Your task to perform on an android device: Go to Amazon Image 0: 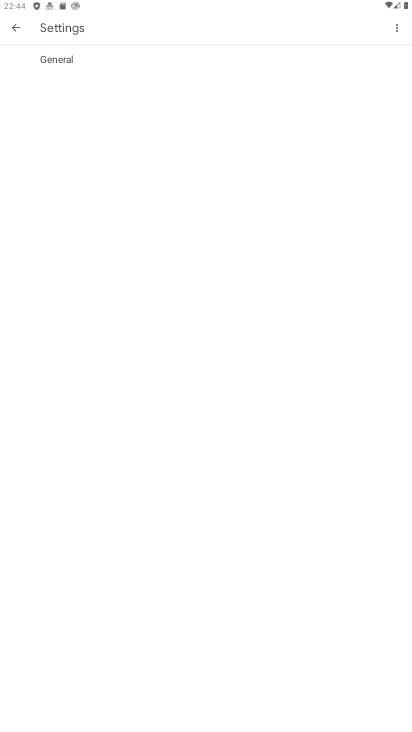
Step 0: click (15, 30)
Your task to perform on an android device: Go to Amazon Image 1: 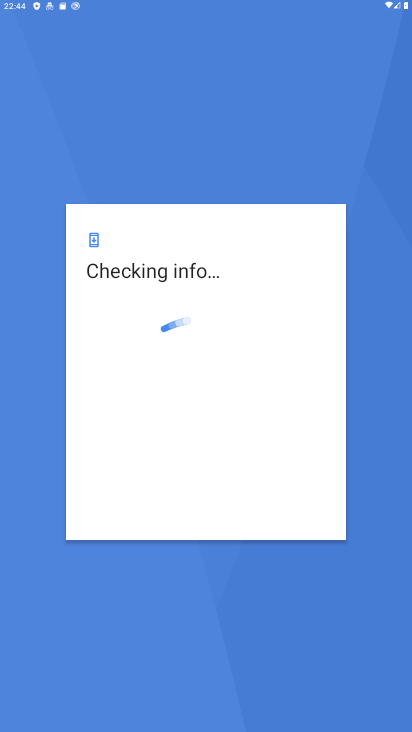
Step 1: click (101, 113)
Your task to perform on an android device: Go to Amazon Image 2: 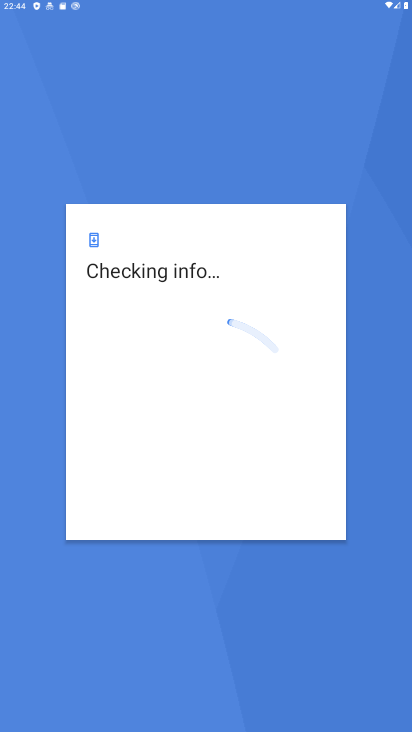
Step 2: press back button
Your task to perform on an android device: Go to Amazon Image 3: 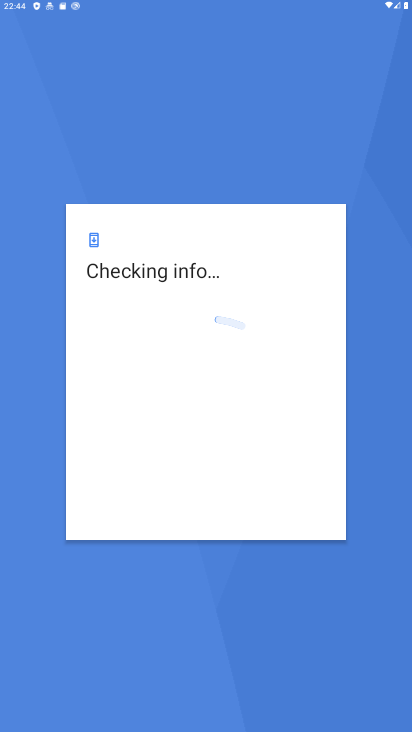
Step 3: press back button
Your task to perform on an android device: Go to Amazon Image 4: 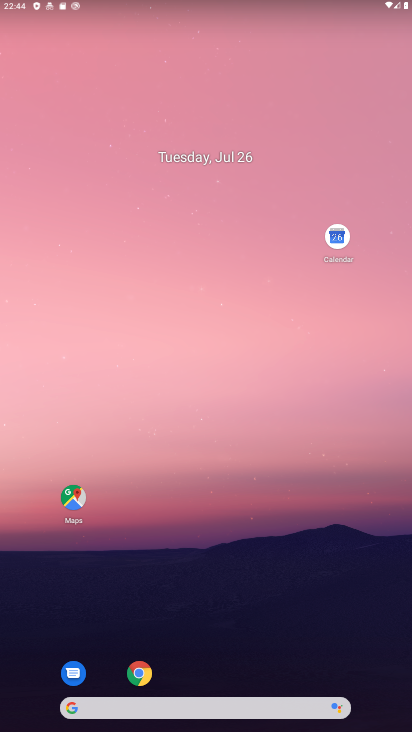
Step 4: click (80, 89)
Your task to perform on an android device: Go to Amazon Image 5: 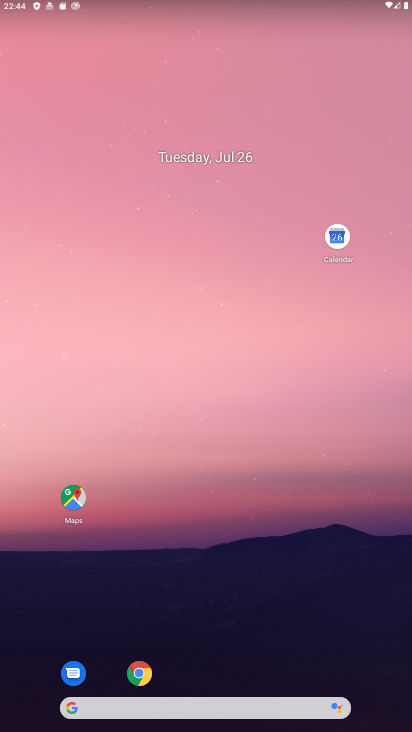
Step 5: drag from (290, 483) to (171, 44)
Your task to perform on an android device: Go to Amazon Image 6: 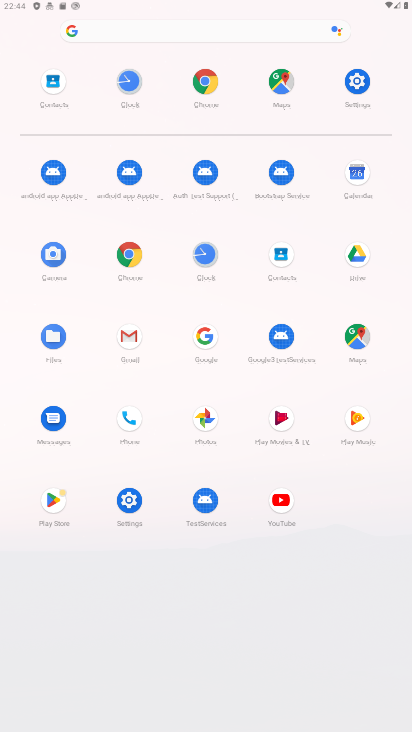
Step 6: drag from (203, 473) to (73, 24)
Your task to perform on an android device: Go to Amazon Image 7: 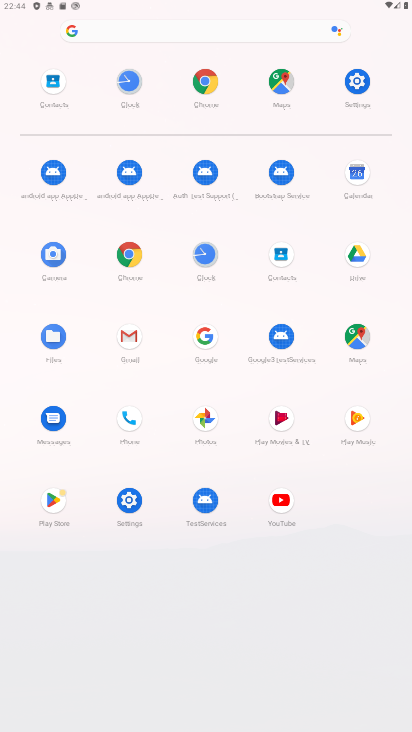
Step 7: drag from (151, 307) to (69, 10)
Your task to perform on an android device: Go to Amazon Image 8: 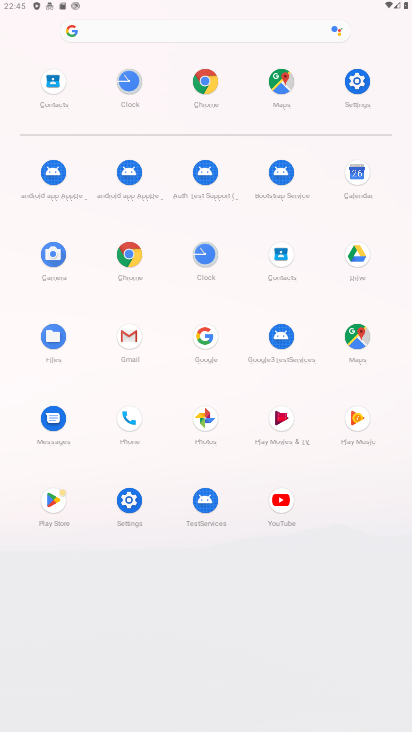
Step 8: click (209, 76)
Your task to perform on an android device: Go to Amazon Image 9: 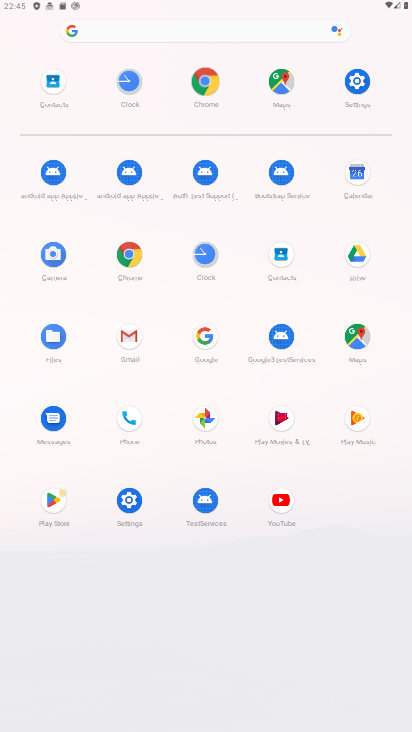
Step 9: click (209, 76)
Your task to perform on an android device: Go to Amazon Image 10: 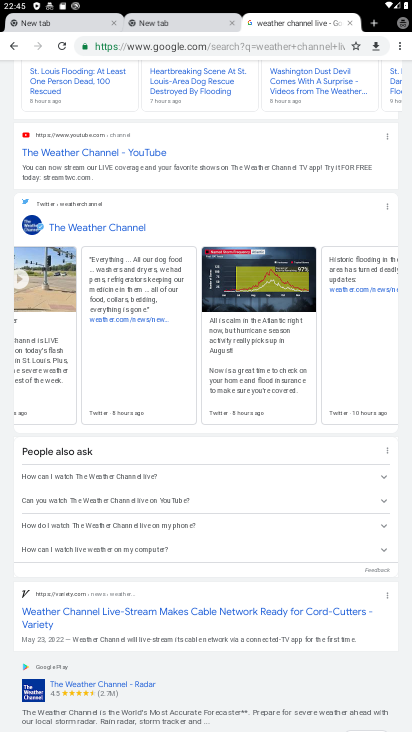
Step 10: click (61, 206)
Your task to perform on an android device: Go to Amazon Image 11: 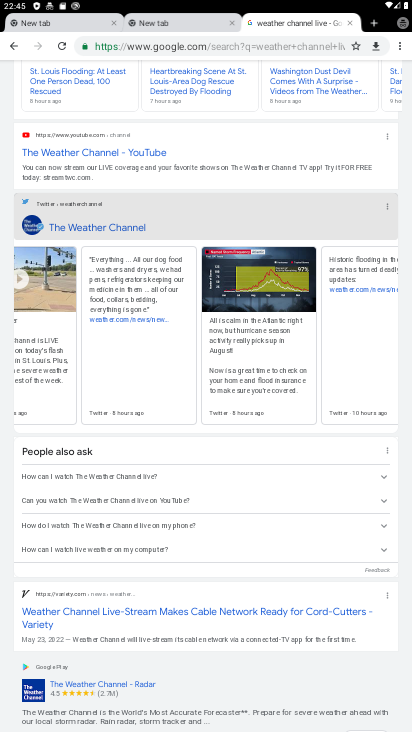
Step 11: click (72, 209)
Your task to perform on an android device: Go to Amazon Image 12: 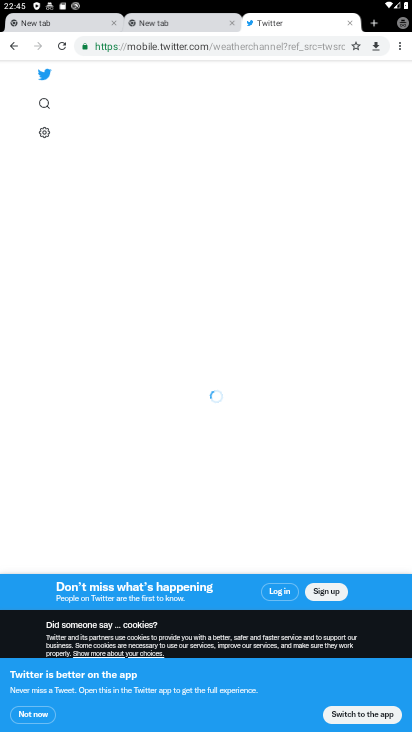
Step 12: press back button
Your task to perform on an android device: Go to Amazon Image 13: 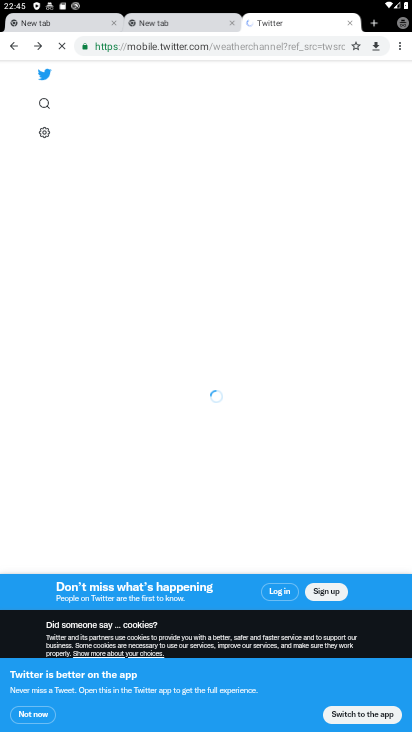
Step 13: press back button
Your task to perform on an android device: Go to Amazon Image 14: 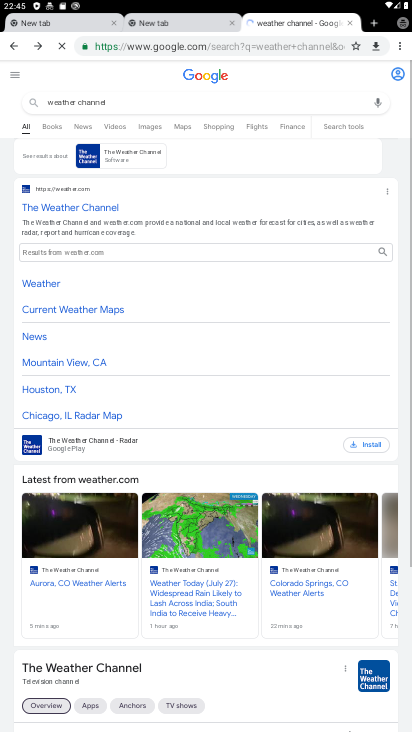
Step 14: click (348, 18)
Your task to perform on an android device: Go to Amazon Image 15: 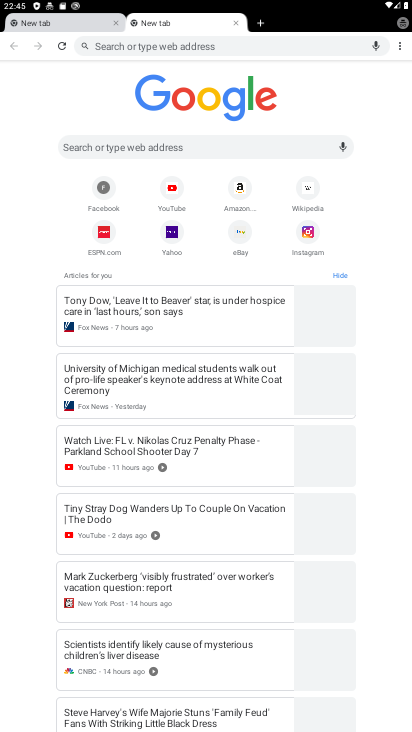
Step 15: click (351, 18)
Your task to perform on an android device: Go to Amazon Image 16: 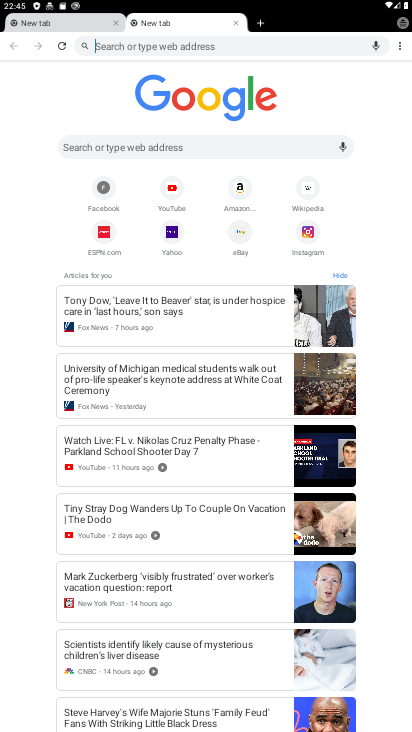
Step 16: click (239, 196)
Your task to perform on an android device: Go to Amazon Image 17: 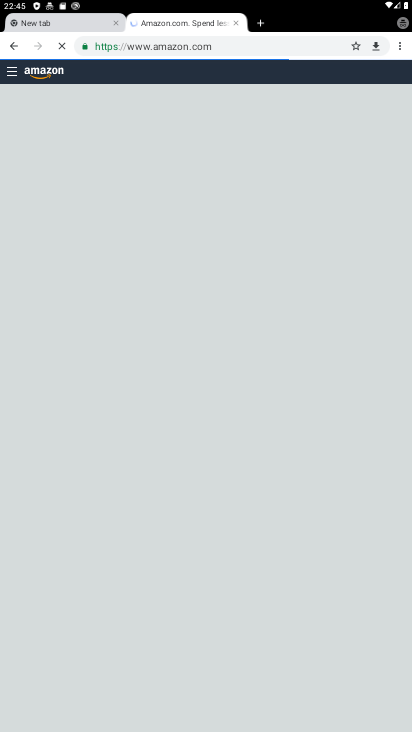
Step 17: click (232, 191)
Your task to perform on an android device: Go to Amazon Image 18: 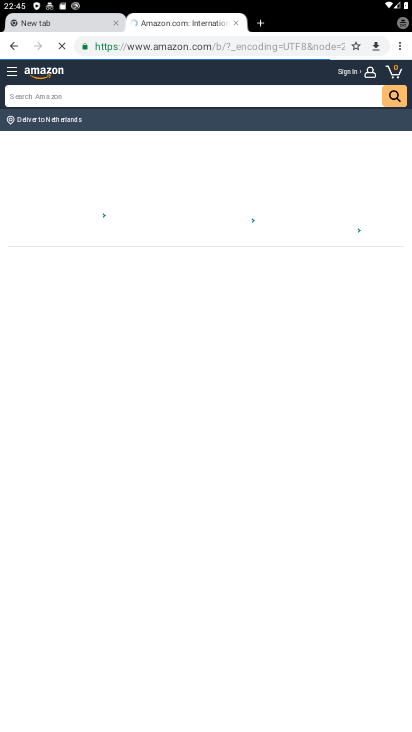
Step 18: task complete